Your task to perform on an android device: Go to Yahoo.com Image 0: 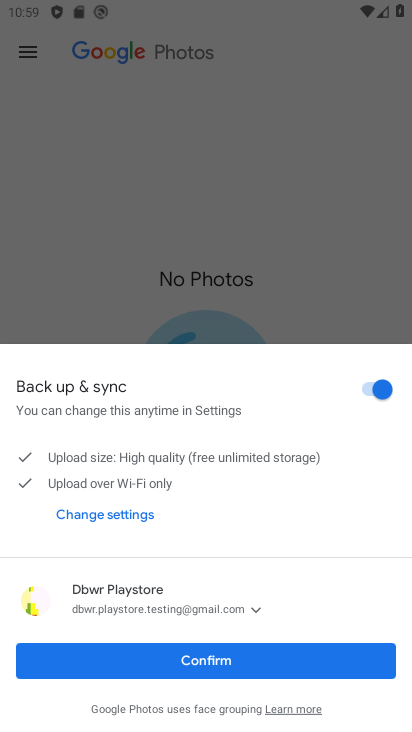
Step 0: click (330, 672)
Your task to perform on an android device: Go to Yahoo.com Image 1: 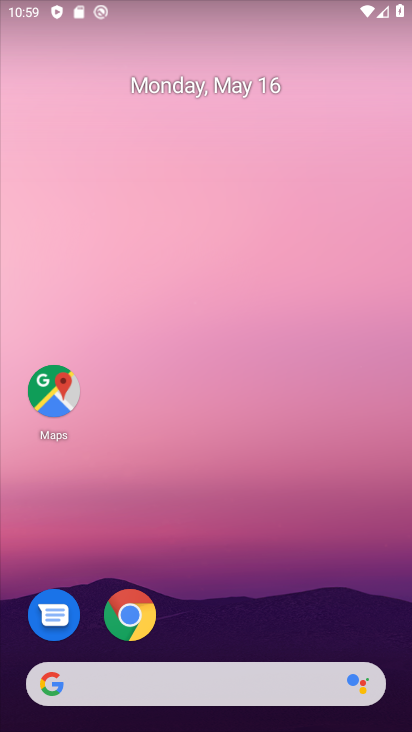
Step 1: press home button
Your task to perform on an android device: Go to Yahoo.com Image 2: 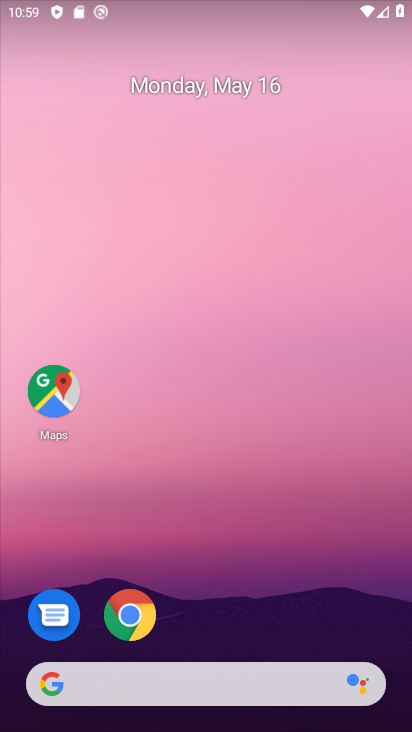
Step 2: click (133, 626)
Your task to perform on an android device: Go to Yahoo.com Image 3: 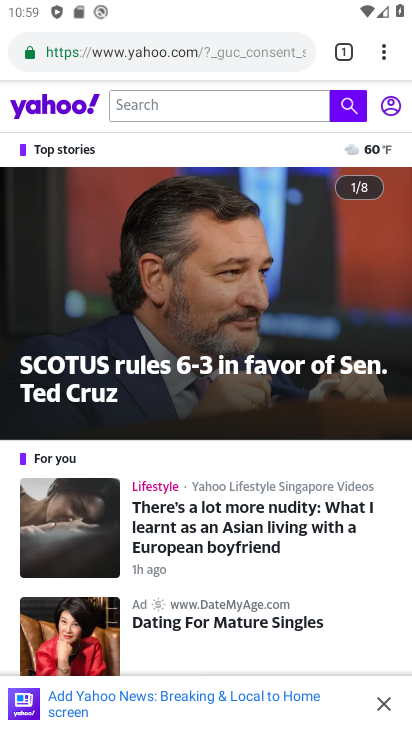
Step 3: click (207, 58)
Your task to perform on an android device: Go to Yahoo.com Image 4: 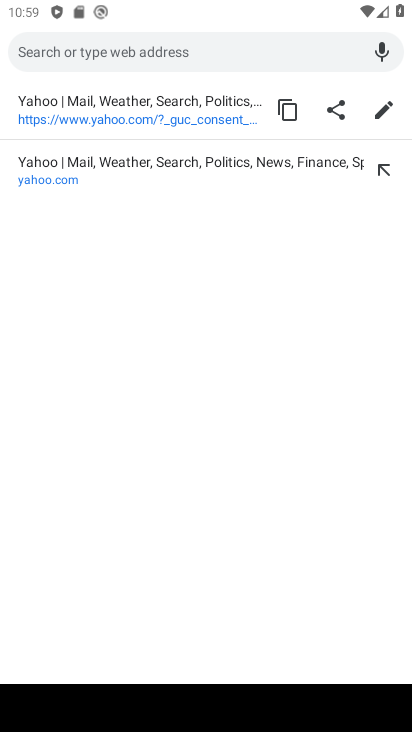
Step 4: type " Yahoo.com"
Your task to perform on an android device: Go to Yahoo.com Image 5: 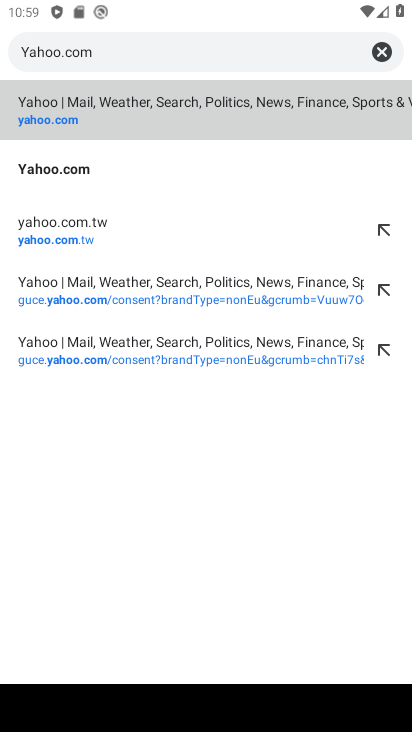
Step 5: click (35, 120)
Your task to perform on an android device: Go to Yahoo.com Image 6: 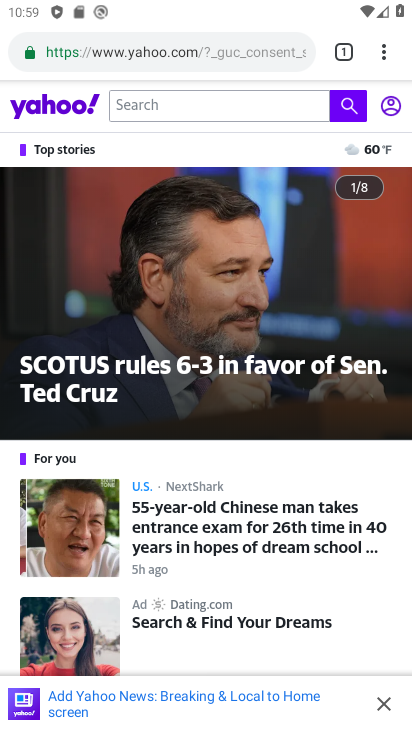
Step 6: task complete